Your task to perform on an android device: Open calendar and show me the fourth week of next month Image 0: 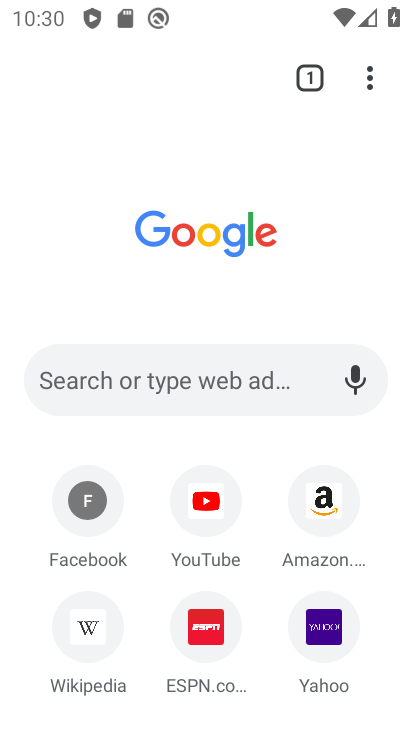
Step 0: press back button
Your task to perform on an android device: Open calendar and show me the fourth week of next month Image 1: 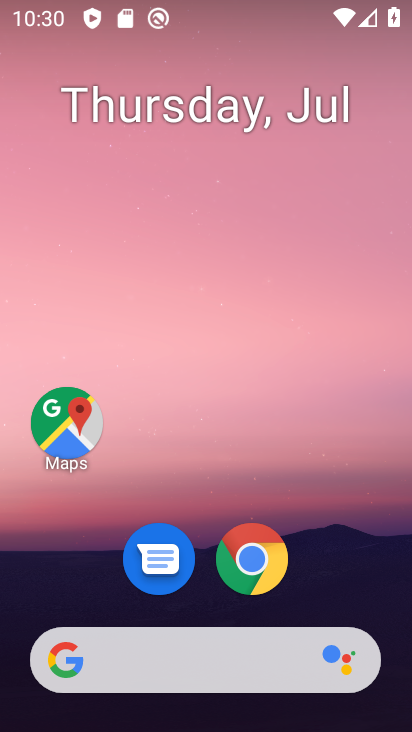
Step 1: drag from (176, 558) to (185, 15)
Your task to perform on an android device: Open calendar and show me the fourth week of next month Image 2: 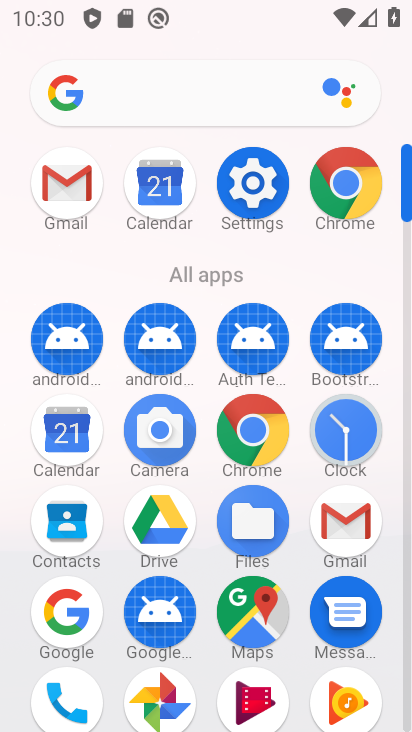
Step 2: click (69, 446)
Your task to perform on an android device: Open calendar and show me the fourth week of next month Image 3: 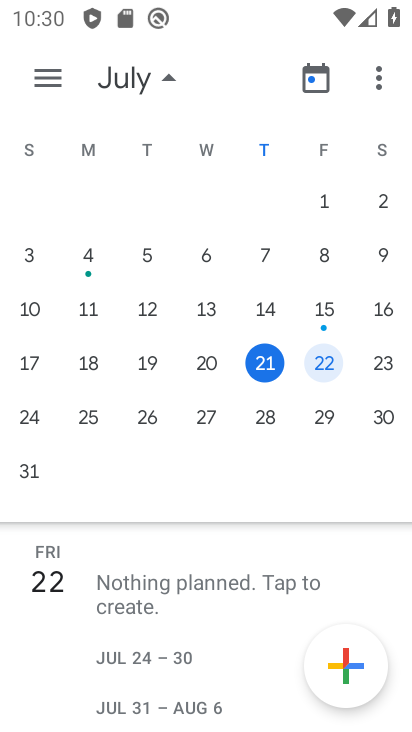
Step 3: drag from (389, 310) to (35, 448)
Your task to perform on an android device: Open calendar and show me the fourth week of next month Image 4: 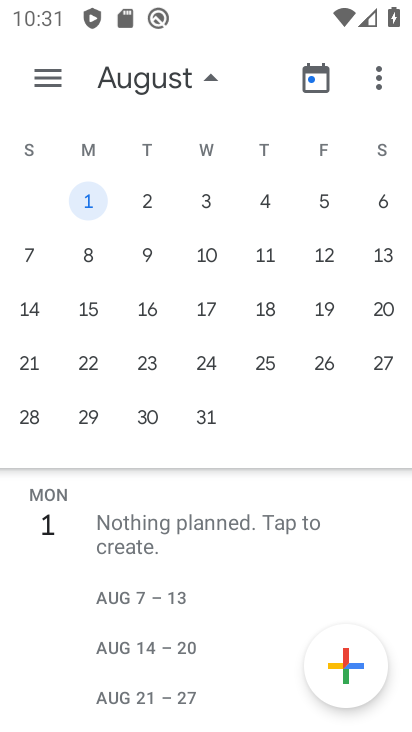
Step 4: click (84, 365)
Your task to perform on an android device: Open calendar and show me the fourth week of next month Image 5: 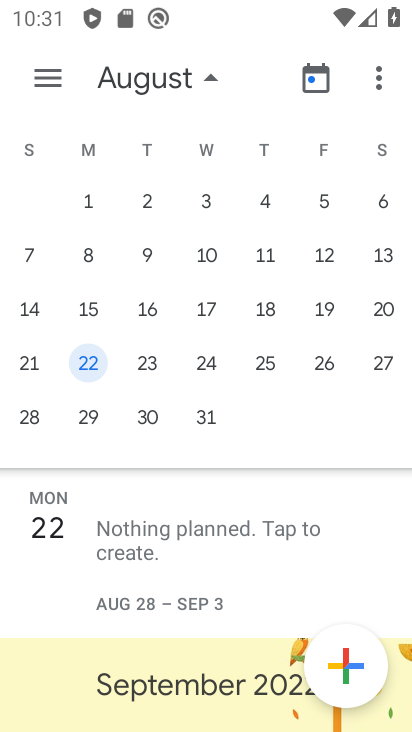
Step 5: task complete